Your task to perform on an android device: change alarm snooze length Image 0: 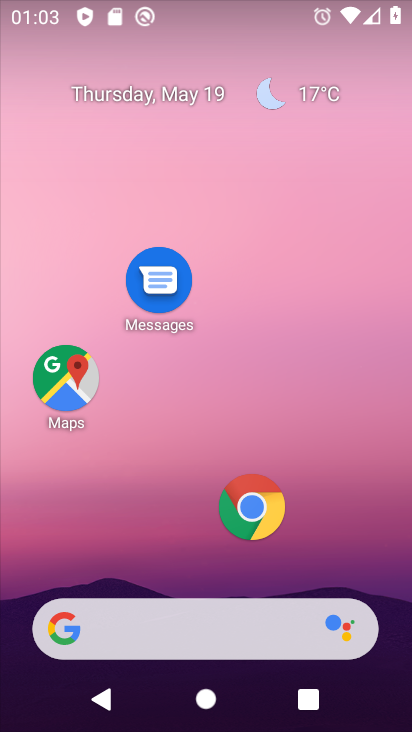
Step 0: drag from (152, 561) to (208, 293)
Your task to perform on an android device: change alarm snooze length Image 1: 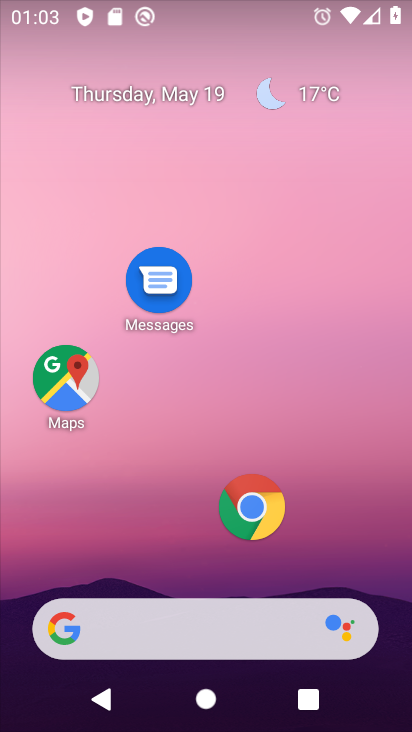
Step 1: drag from (289, 509) to (365, 120)
Your task to perform on an android device: change alarm snooze length Image 2: 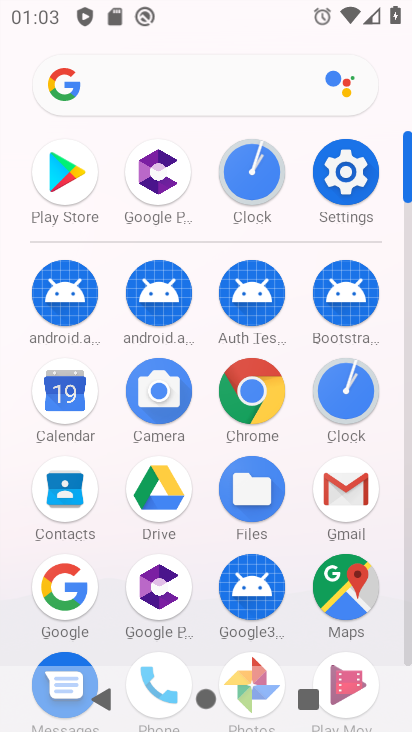
Step 2: click (237, 200)
Your task to perform on an android device: change alarm snooze length Image 3: 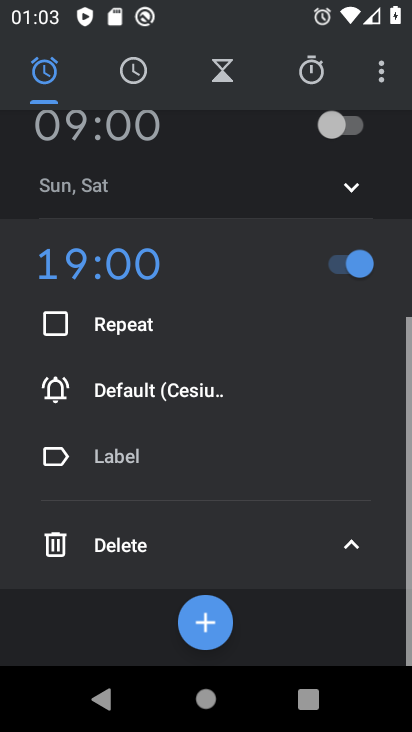
Step 3: click (383, 73)
Your task to perform on an android device: change alarm snooze length Image 4: 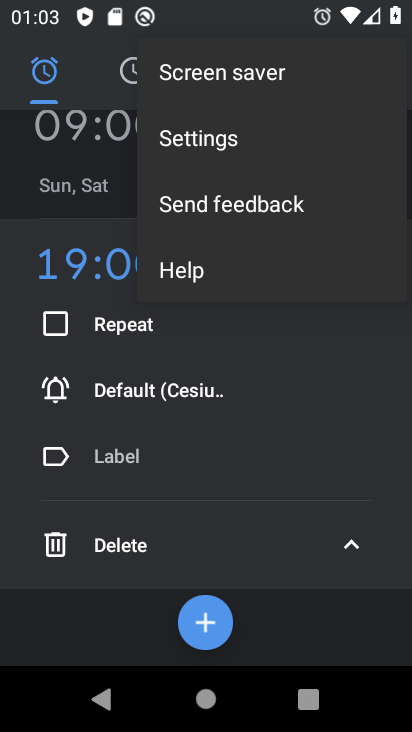
Step 4: click (209, 151)
Your task to perform on an android device: change alarm snooze length Image 5: 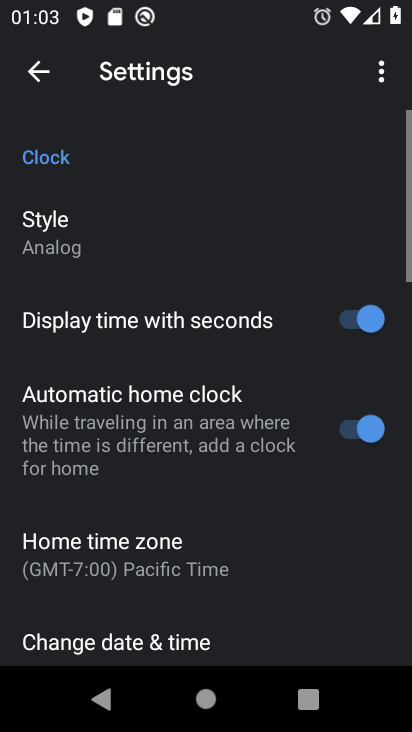
Step 5: drag from (93, 602) to (161, 275)
Your task to perform on an android device: change alarm snooze length Image 6: 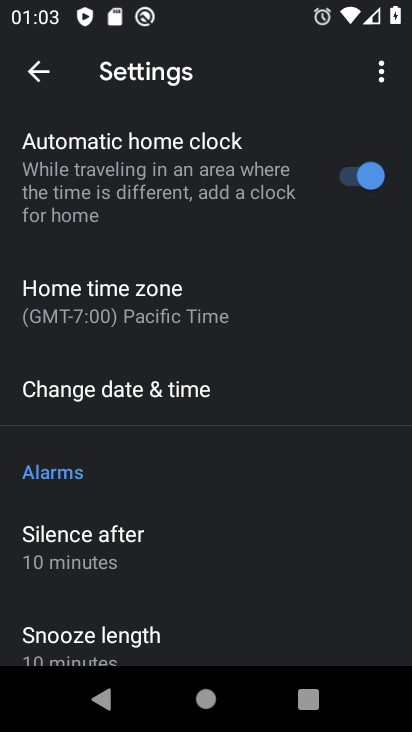
Step 6: drag from (157, 612) to (196, 288)
Your task to perform on an android device: change alarm snooze length Image 7: 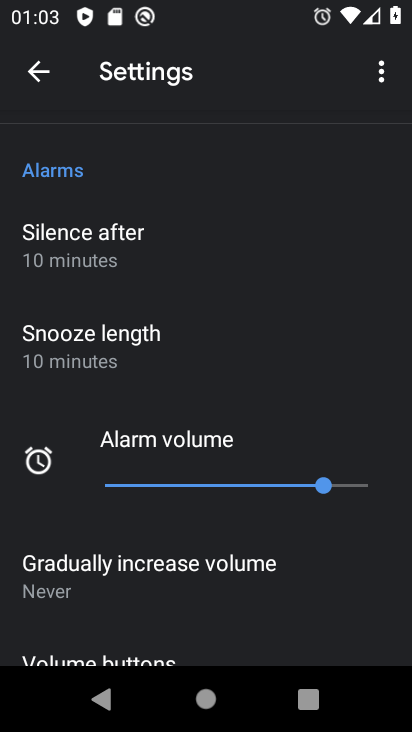
Step 7: click (139, 339)
Your task to perform on an android device: change alarm snooze length Image 8: 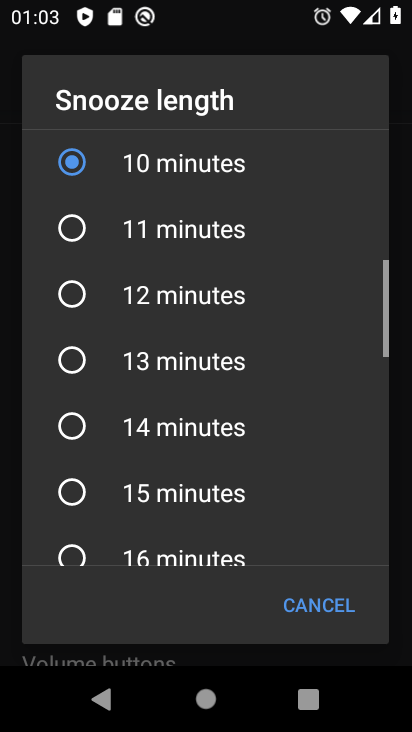
Step 8: click (92, 287)
Your task to perform on an android device: change alarm snooze length Image 9: 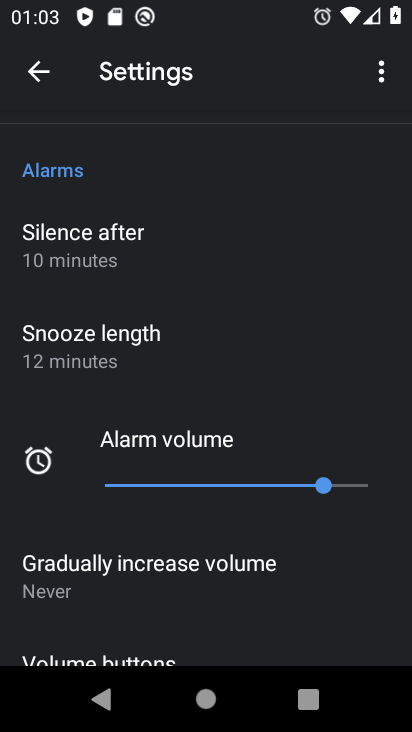
Step 9: task complete